Your task to perform on an android device: Search for razer kraken on target, select the first entry, and add it to the cart. Image 0: 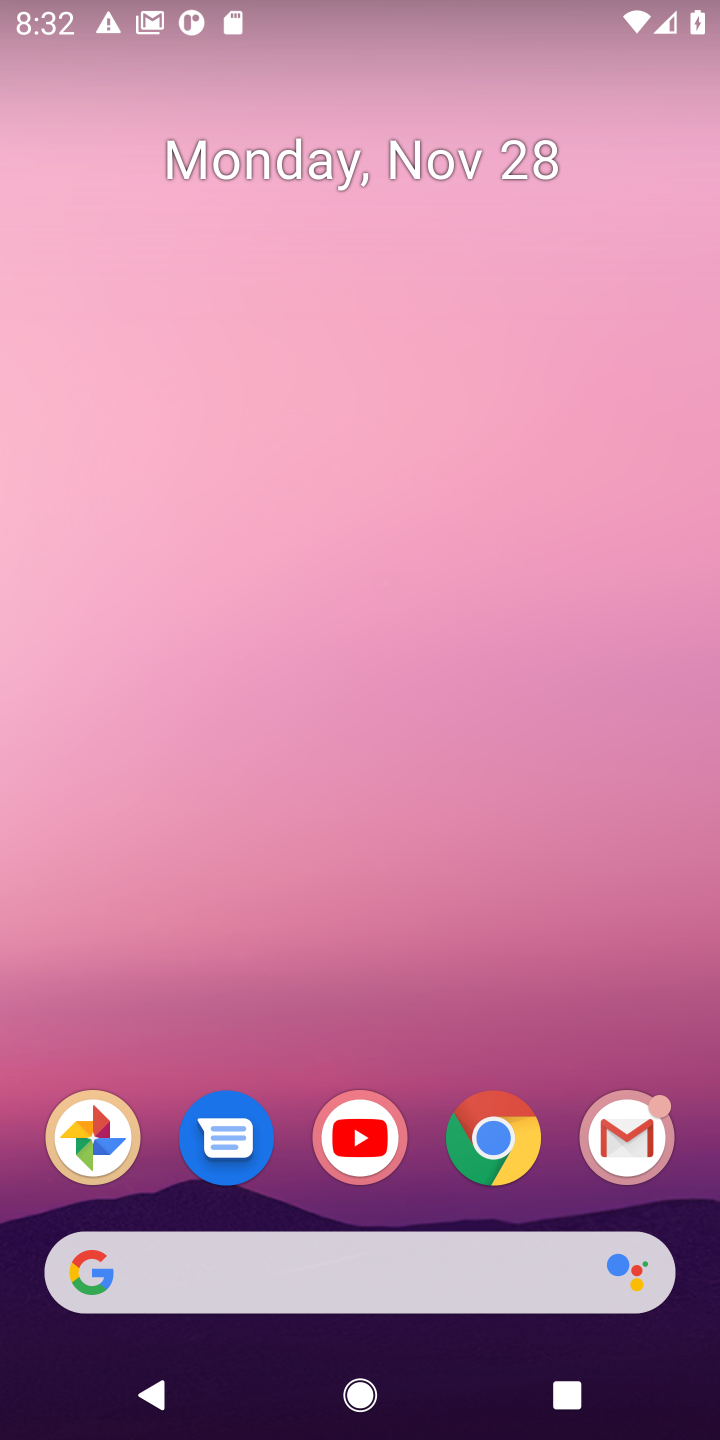
Step 0: click (492, 1144)
Your task to perform on an android device: Search for razer kraken on target, select the first entry, and add it to the cart. Image 1: 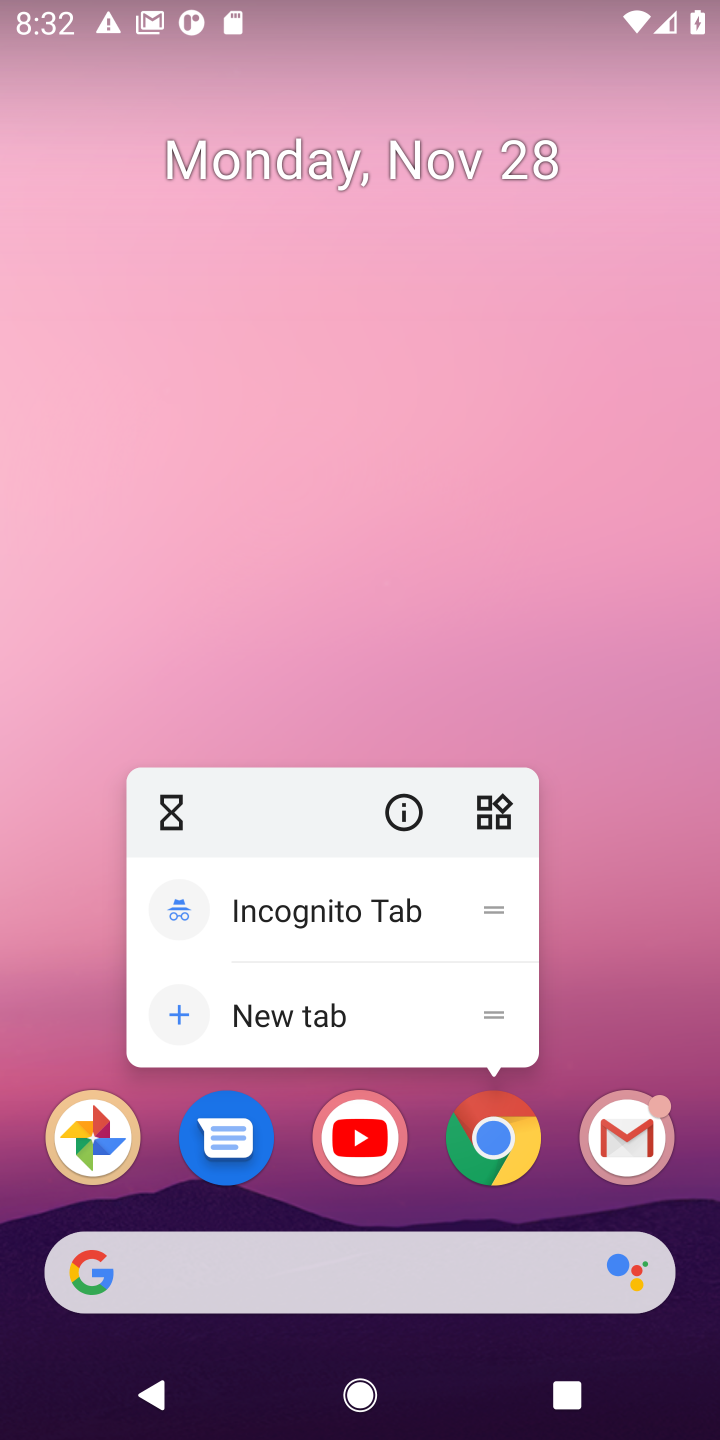
Step 1: click (492, 1144)
Your task to perform on an android device: Search for razer kraken on target, select the first entry, and add it to the cart. Image 2: 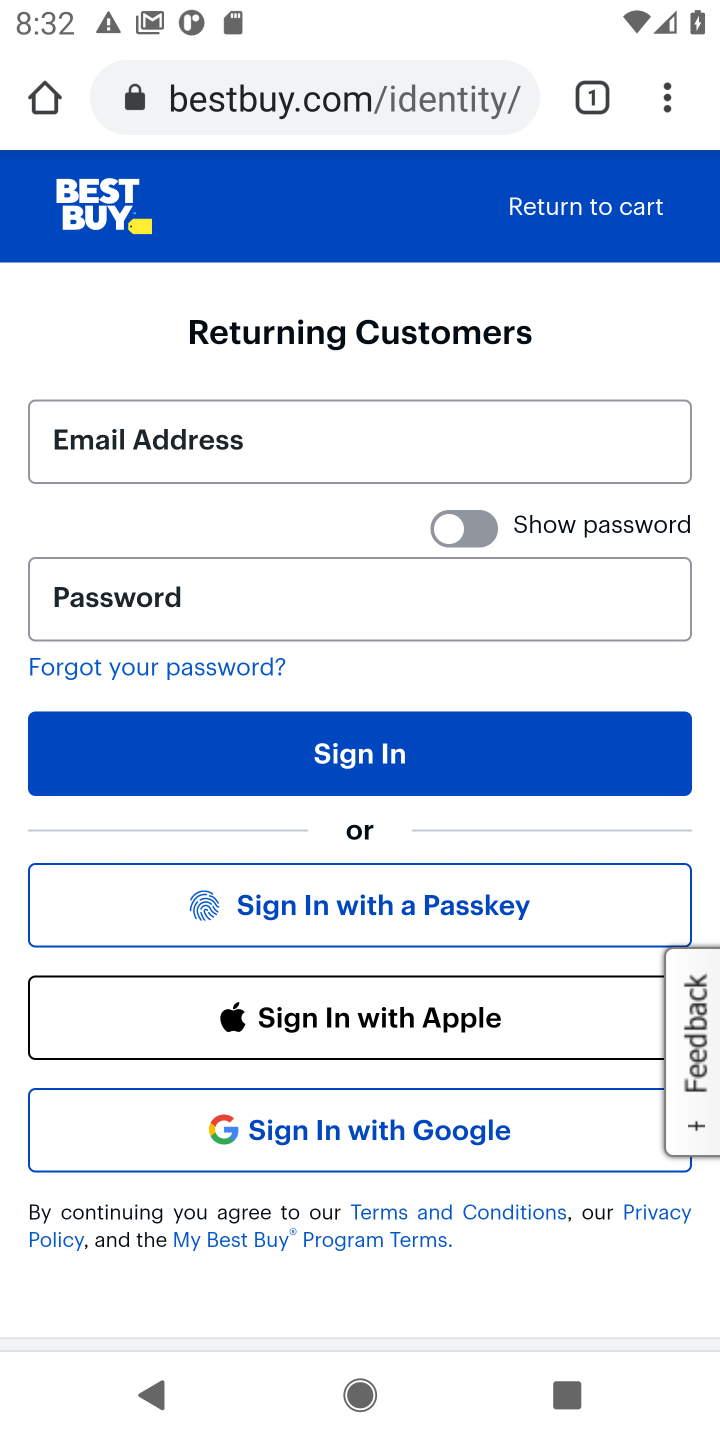
Step 2: click (358, 91)
Your task to perform on an android device: Search for razer kraken on target, select the first entry, and add it to the cart. Image 3: 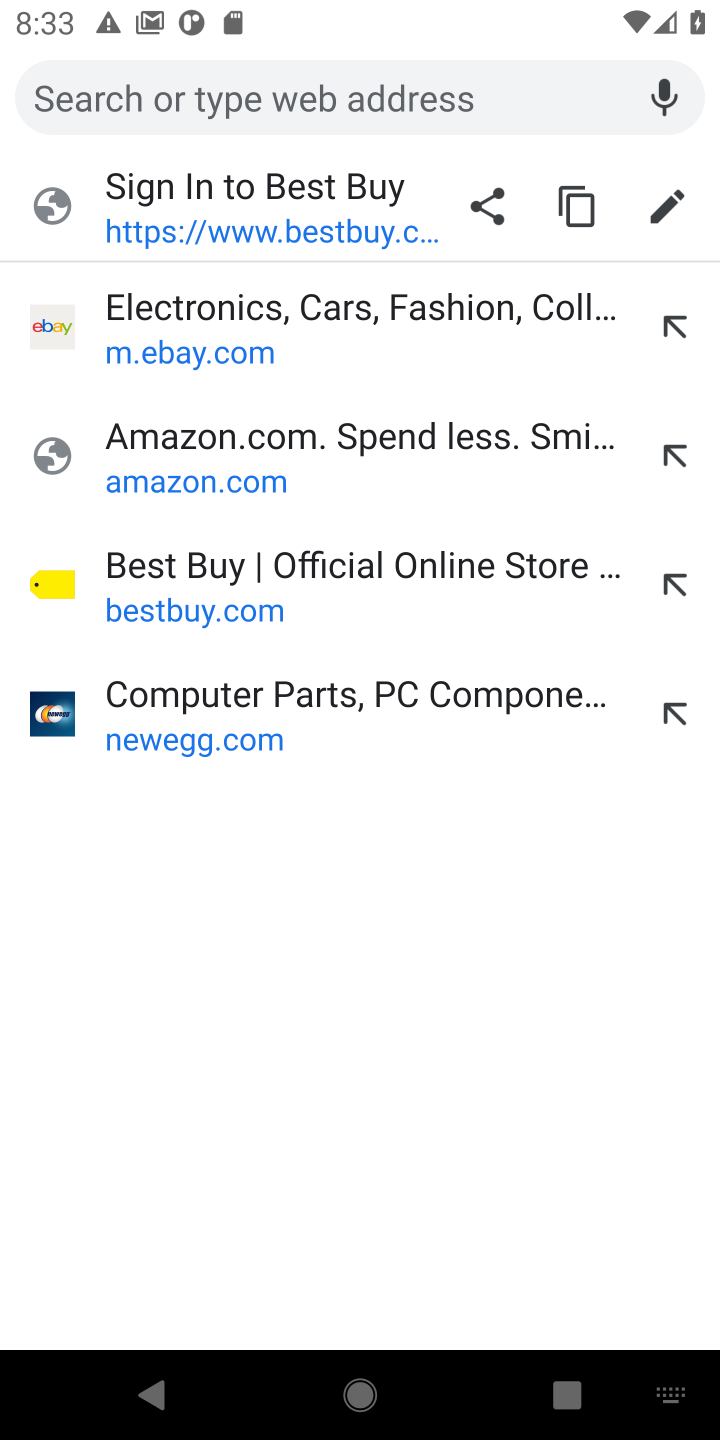
Step 3: type "target.com"
Your task to perform on an android device: Search for razer kraken on target, select the first entry, and add it to the cart. Image 4: 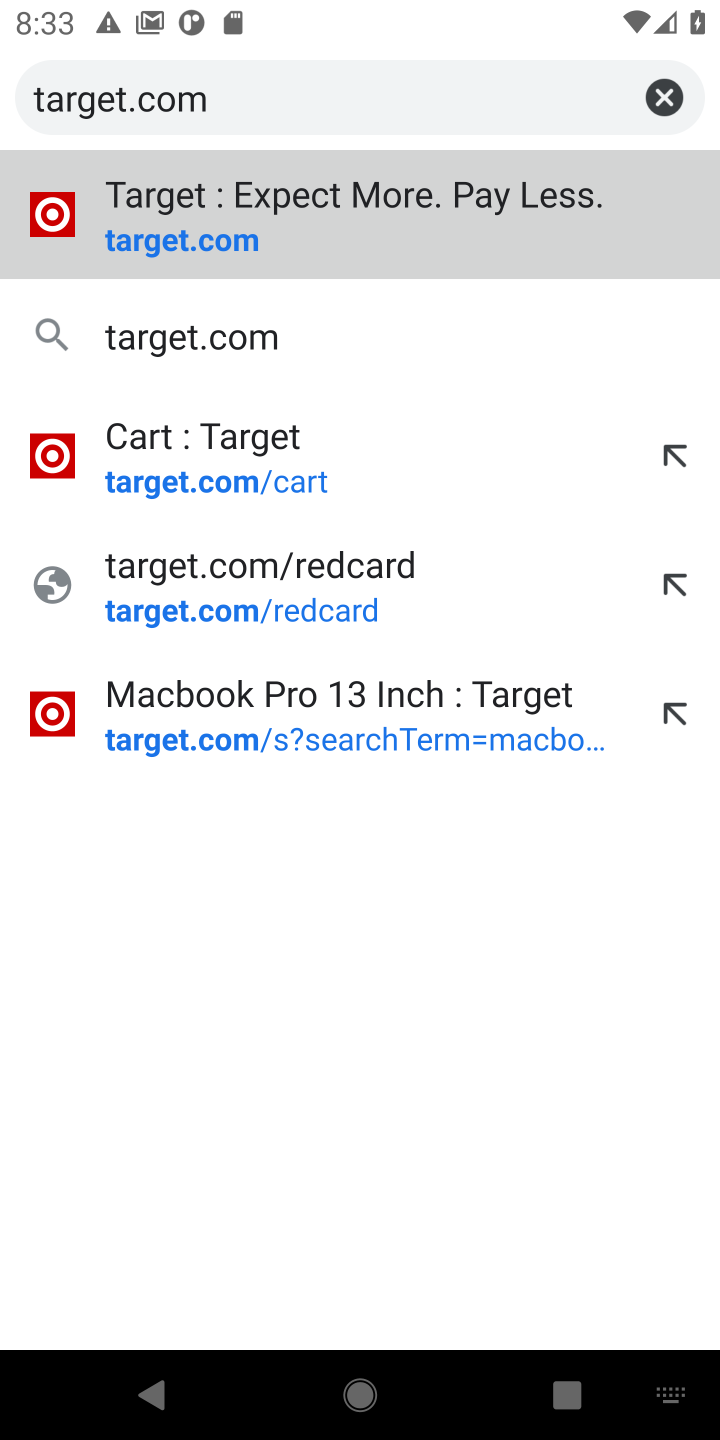
Step 4: click (138, 250)
Your task to perform on an android device: Search for razer kraken on target, select the first entry, and add it to the cart. Image 5: 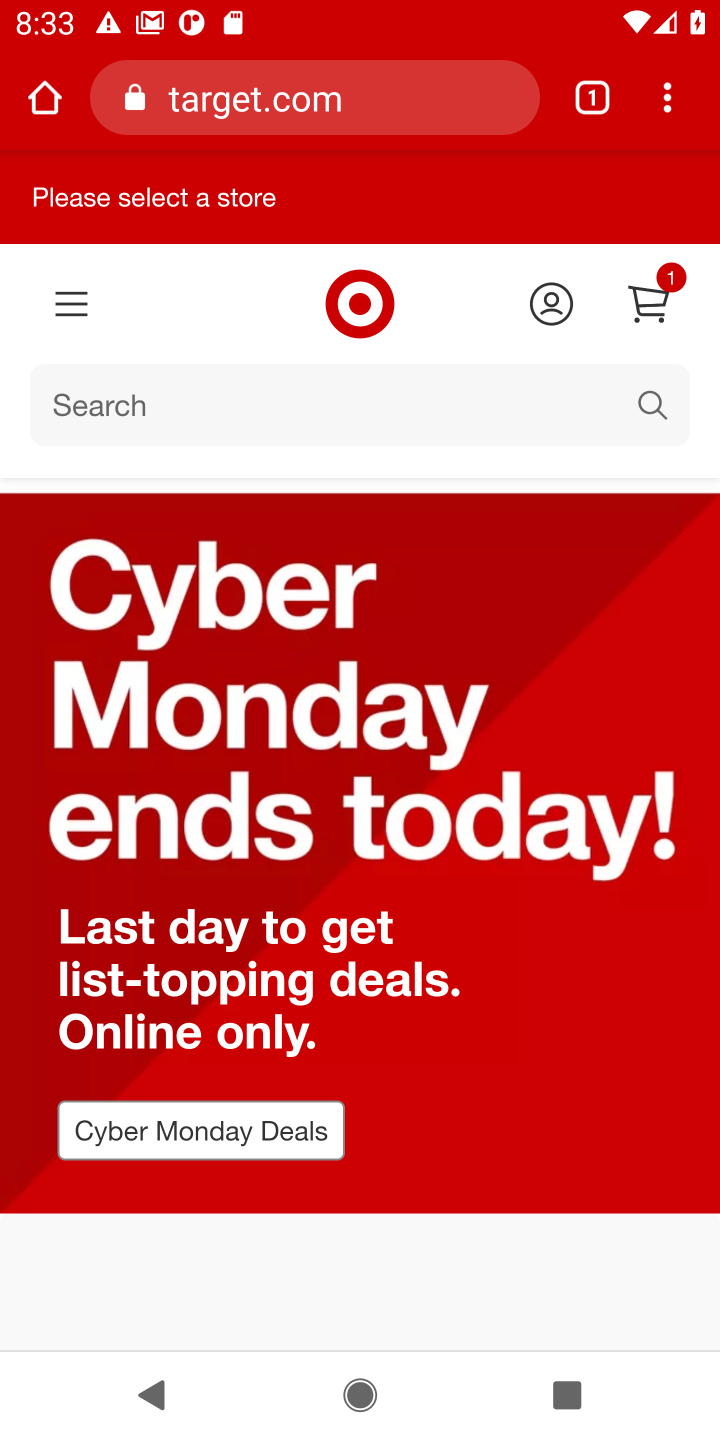
Step 5: click (104, 406)
Your task to perform on an android device: Search for razer kraken on target, select the first entry, and add it to the cart. Image 6: 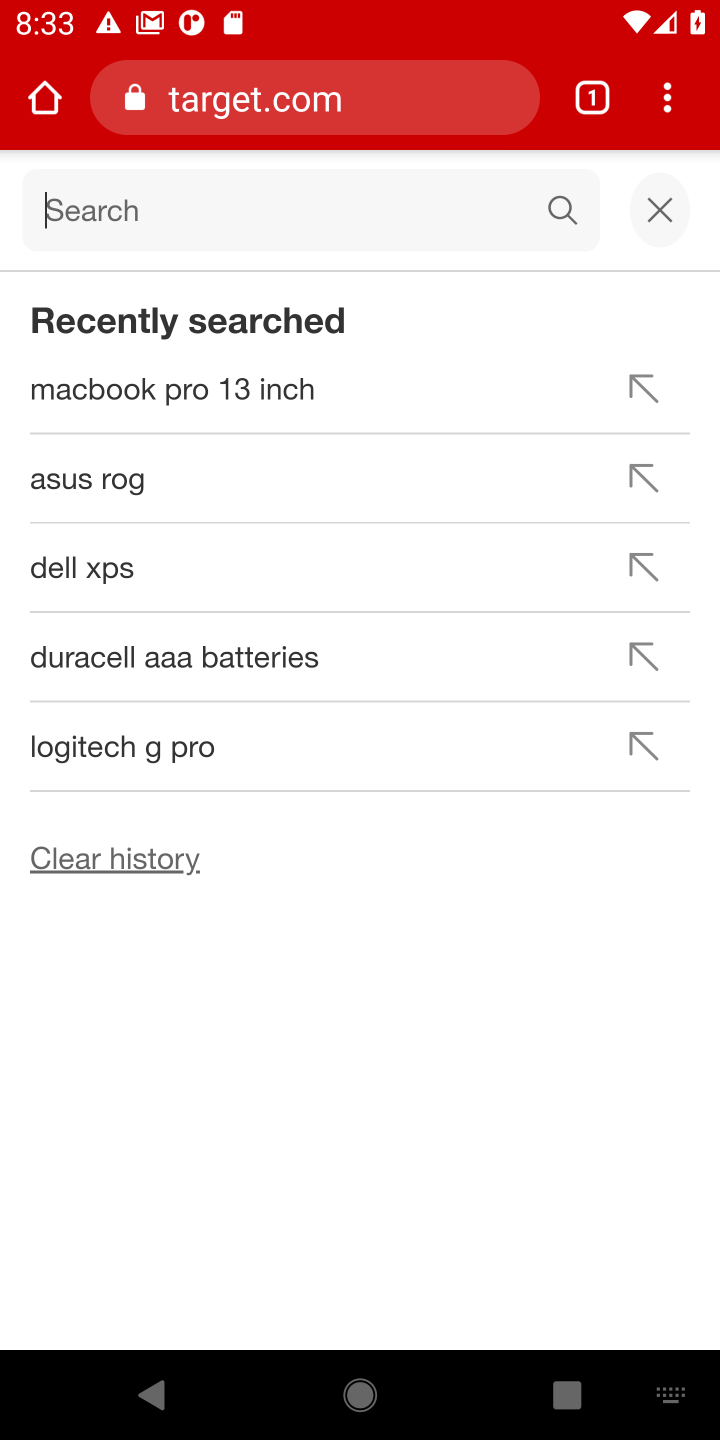
Step 6: type "razer kraken"
Your task to perform on an android device: Search for razer kraken on target, select the first entry, and add it to the cart. Image 7: 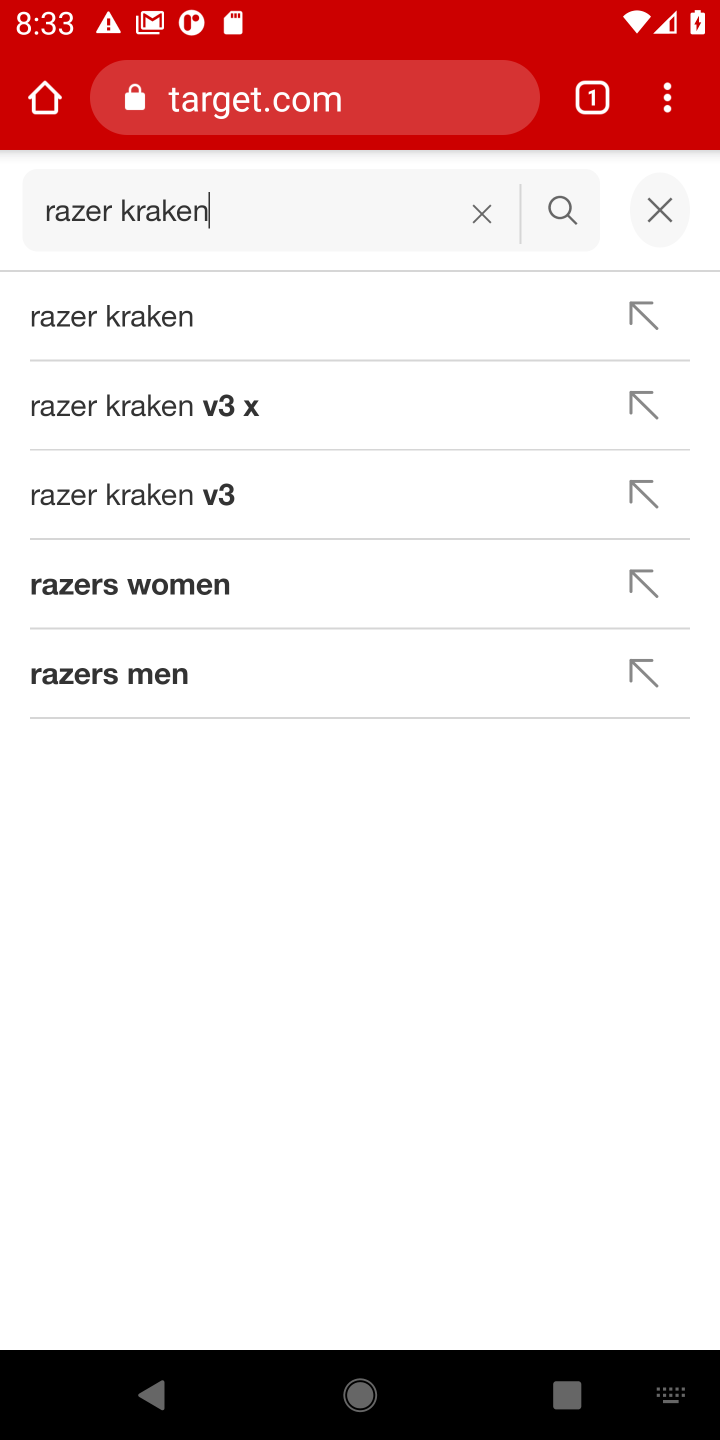
Step 7: click (125, 320)
Your task to perform on an android device: Search for razer kraken on target, select the first entry, and add it to the cart. Image 8: 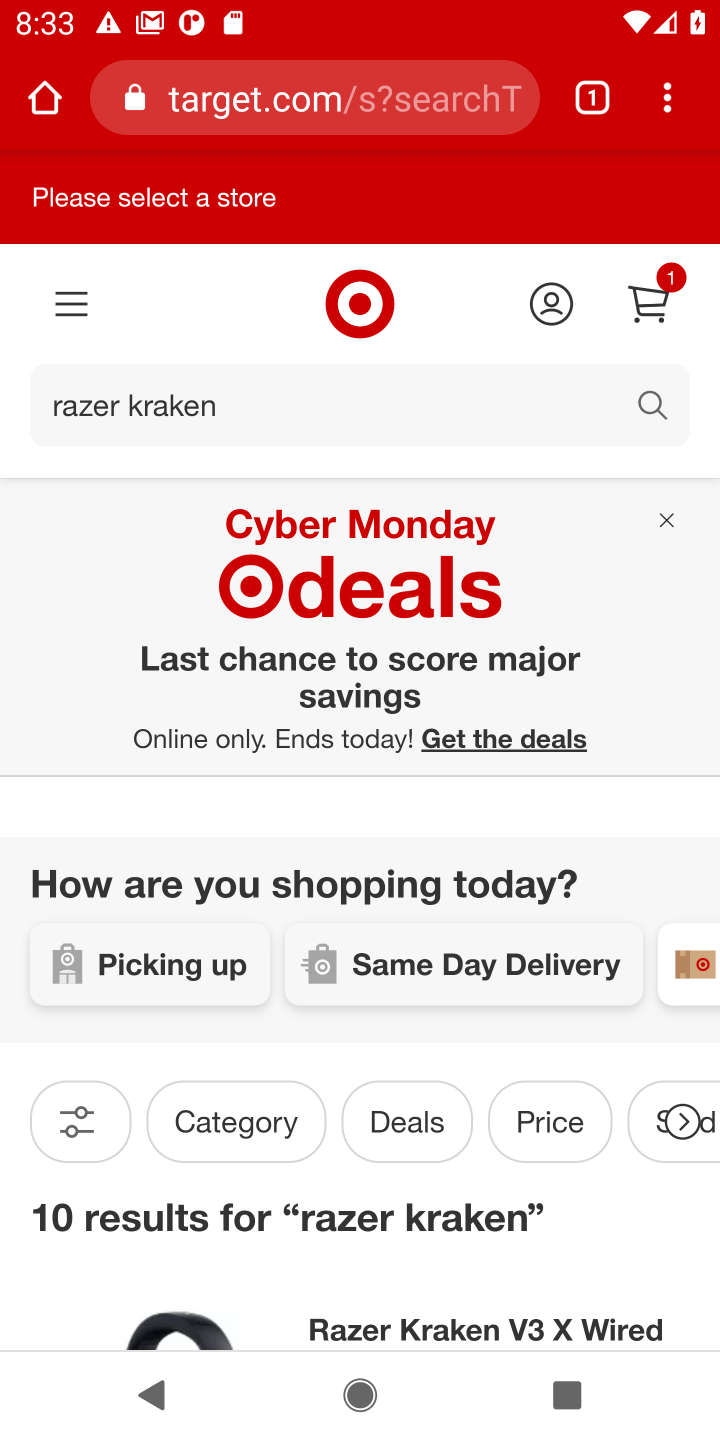
Step 8: drag from (583, 1254) to (600, 653)
Your task to perform on an android device: Search for razer kraken on target, select the first entry, and add it to the cart. Image 9: 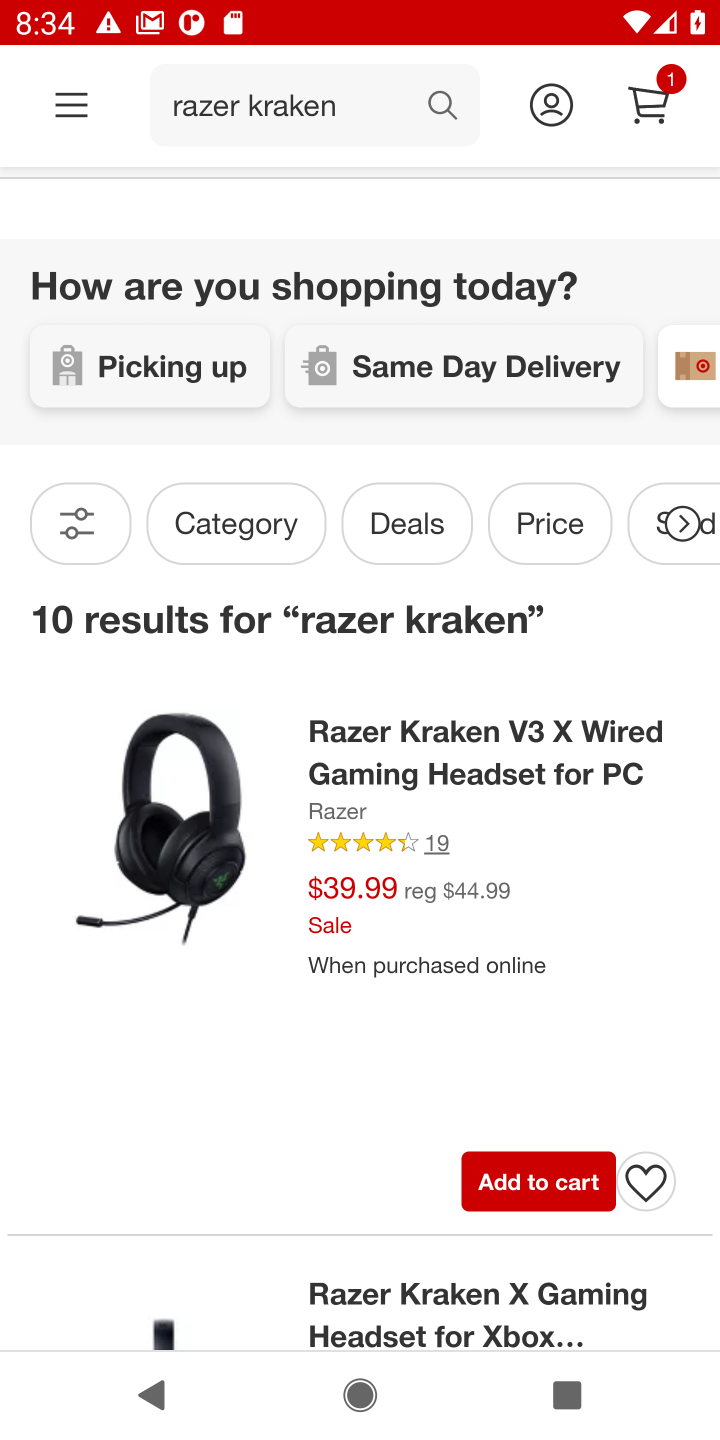
Step 9: click (523, 1192)
Your task to perform on an android device: Search for razer kraken on target, select the first entry, and add it to the cart. Image 10: 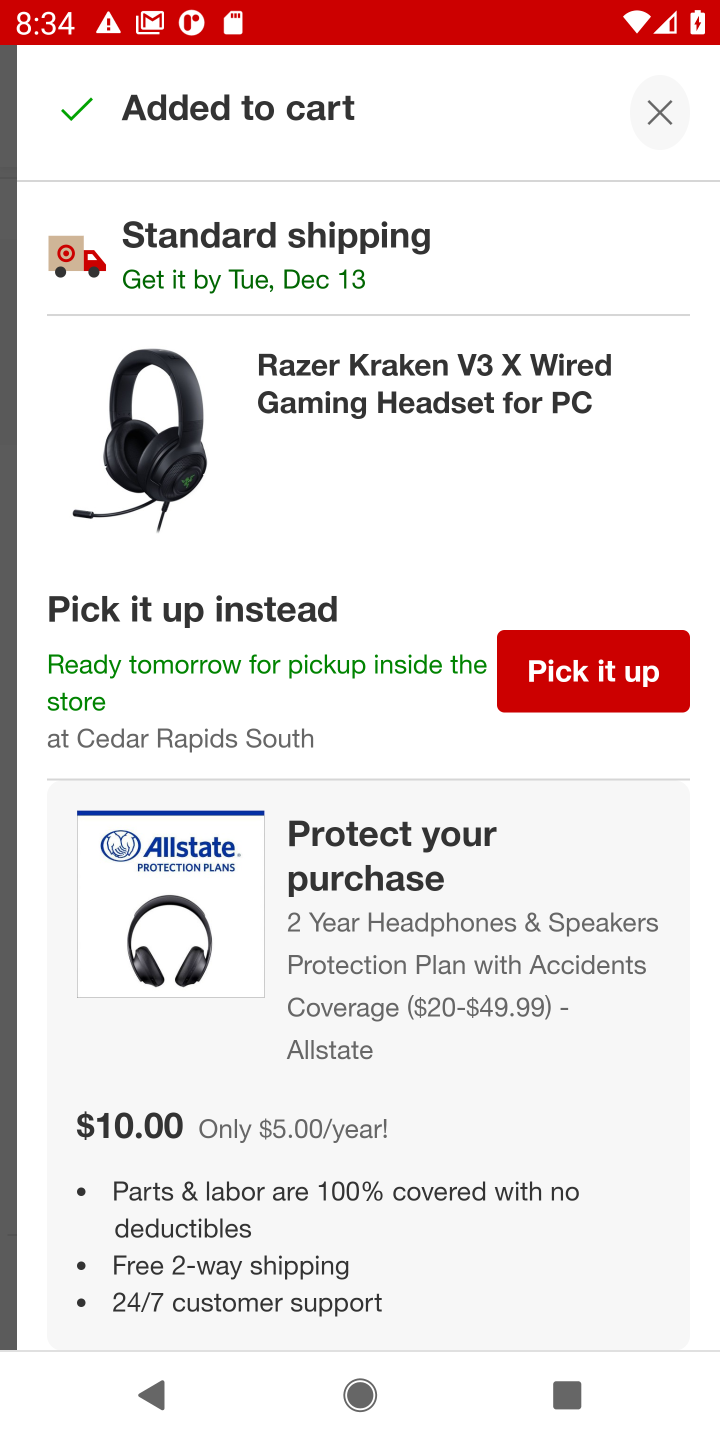
Step 10: task complete